Your task to perform on an android device: Search for sushi restaurants on Maps Image 0: 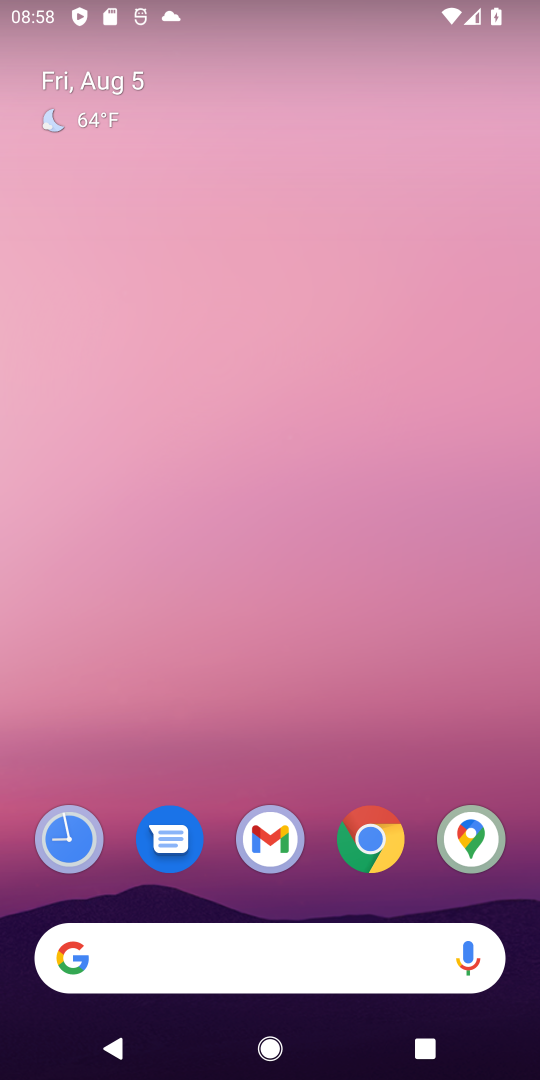
Step 0: drag from (320, 803) to (323, 90)
Your task to perform on an android device: Search for sushi restaurants on Maps Image 1: 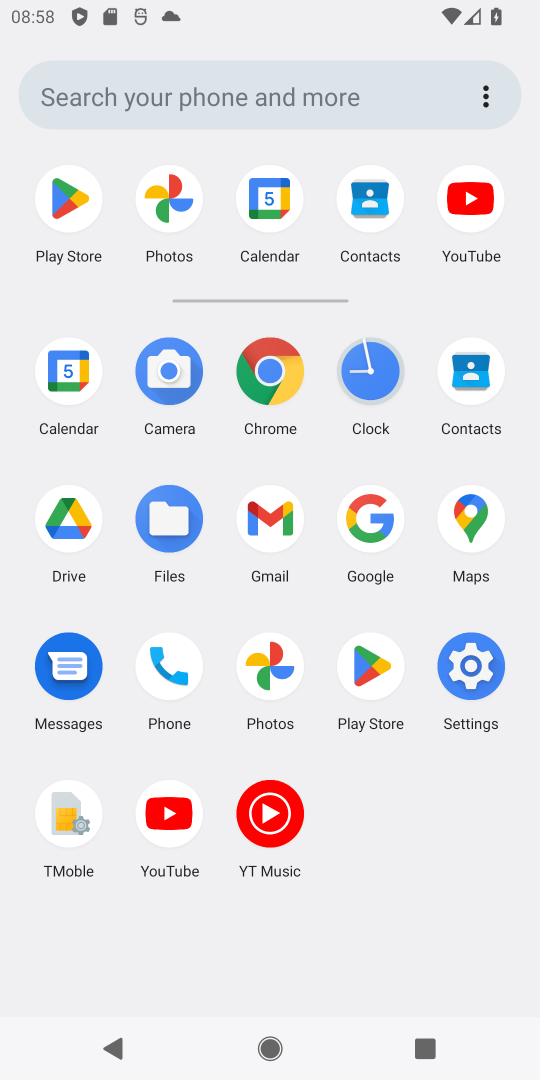
Step 1: click (472, 522)
Your task to perform on an android device: Search for sushi restaurants on Maps Image 2: 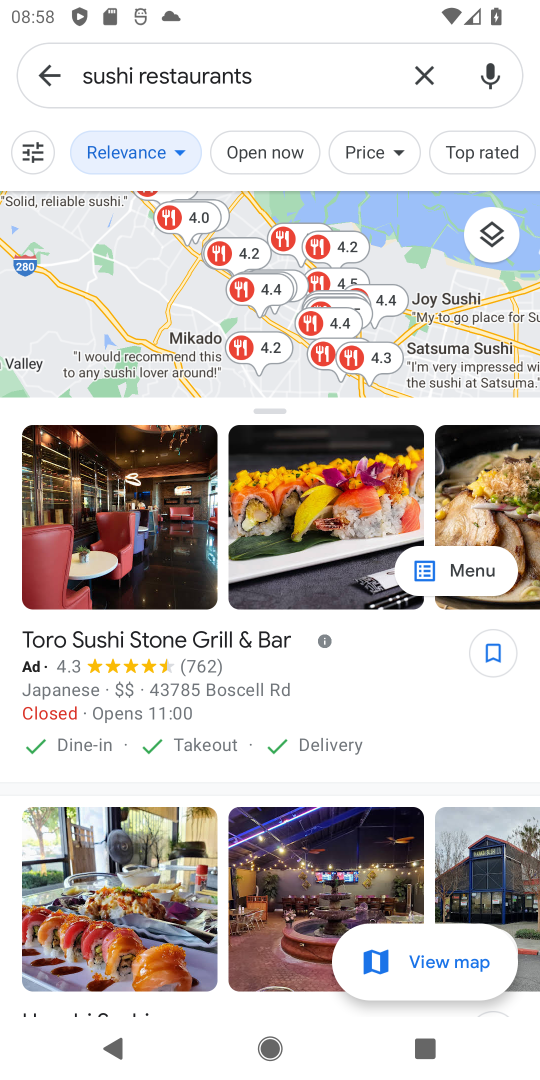
Step 2: task complete